Your task to perform on an android device: open sync settings in chrome Image 0: 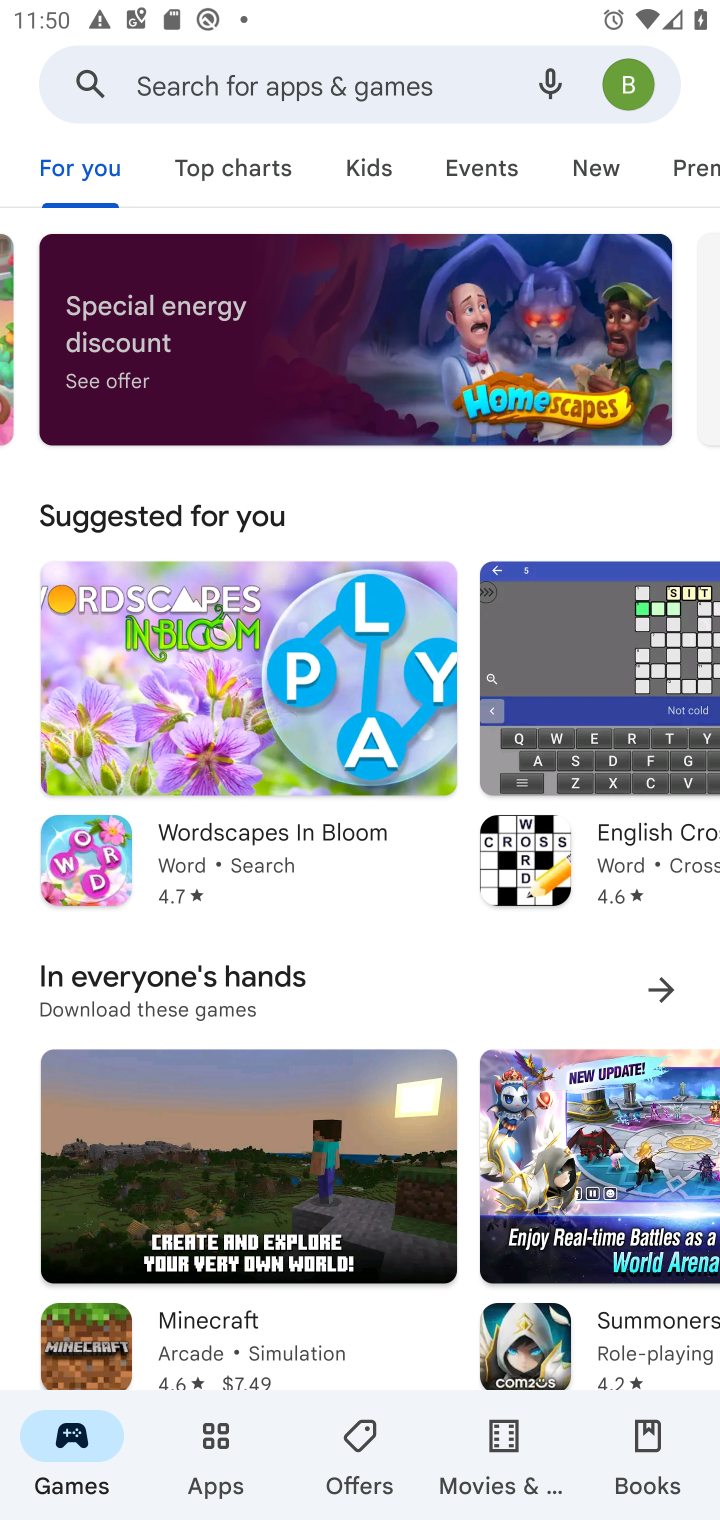
Step 0: press home button
Your task to perform on an android device: open sync settings in chrome Image 1: 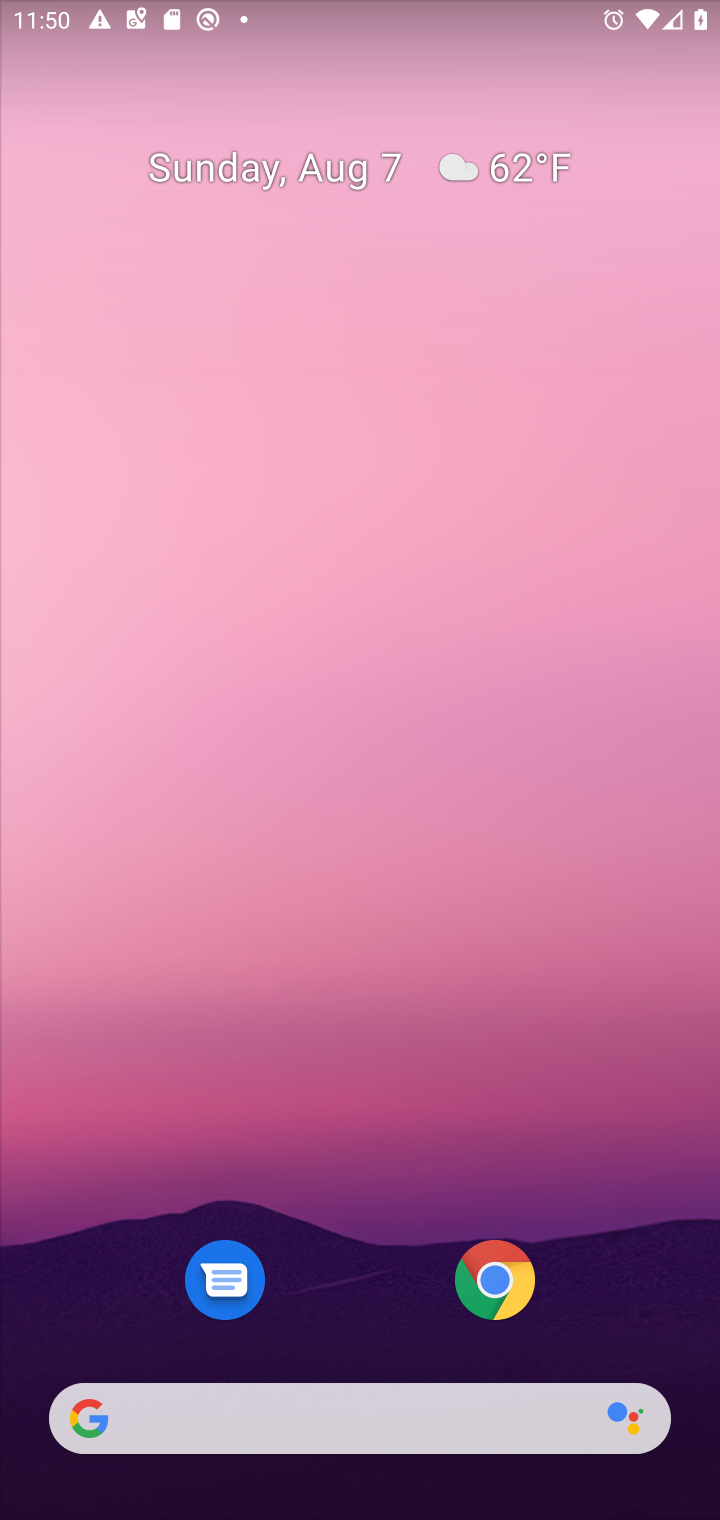
Step 1: click (491, 1280)
Your task to perform on an android device: open sync settings in chrome Image 2: 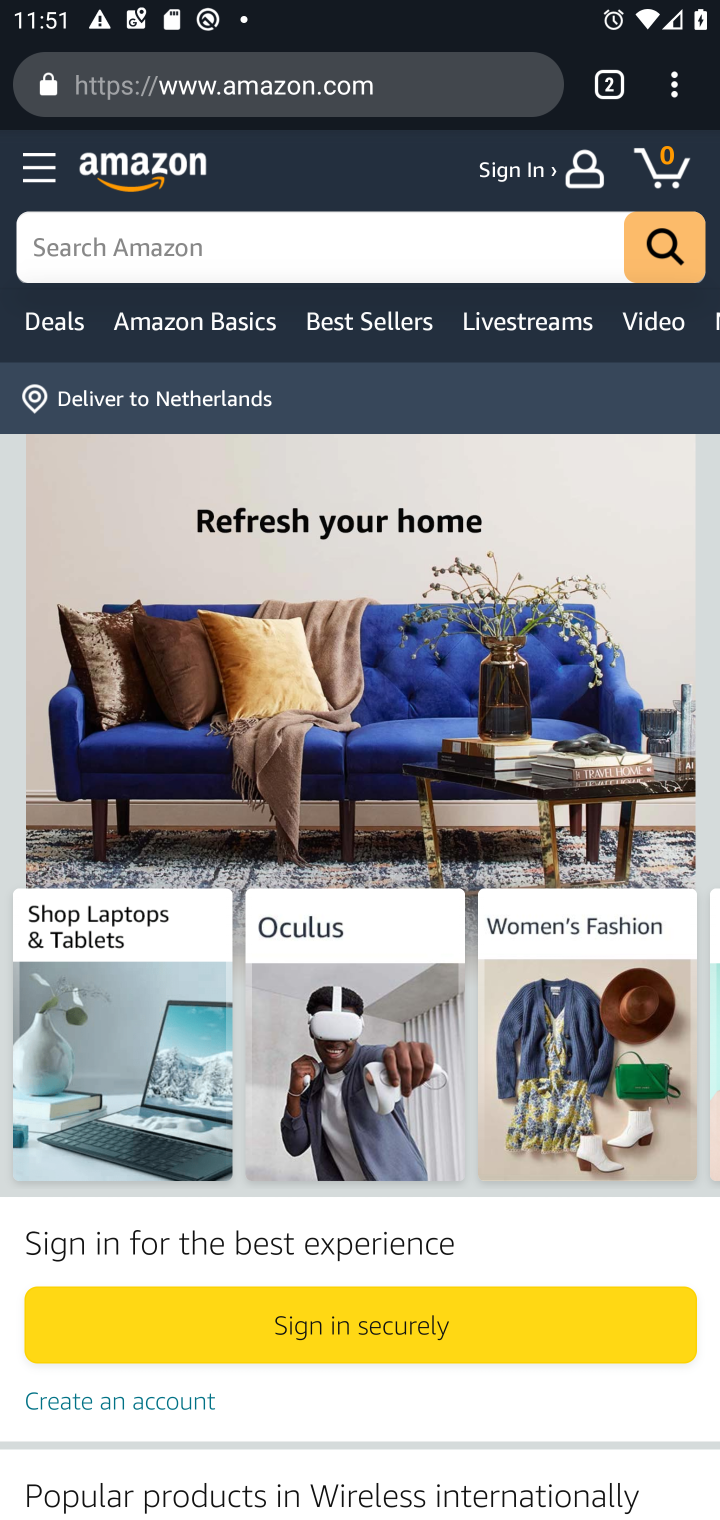
Step 2: drag from (676, 94) to (396, 1088)
Your task to perform on an android device: open sync settings in chrome Image 3: 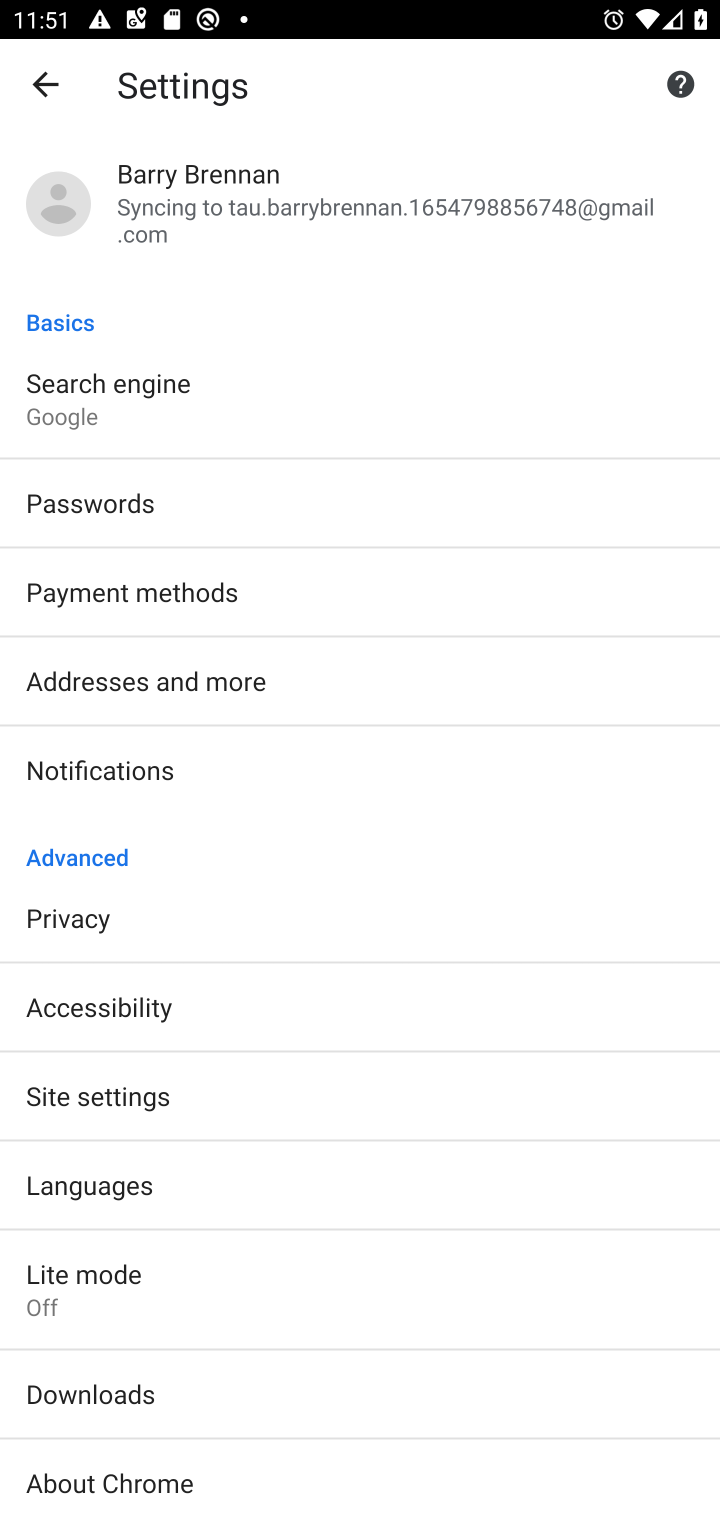
Step 3: click (83, 1092)
Your task to perform on an android device: open sync settings in chrome Image 4: 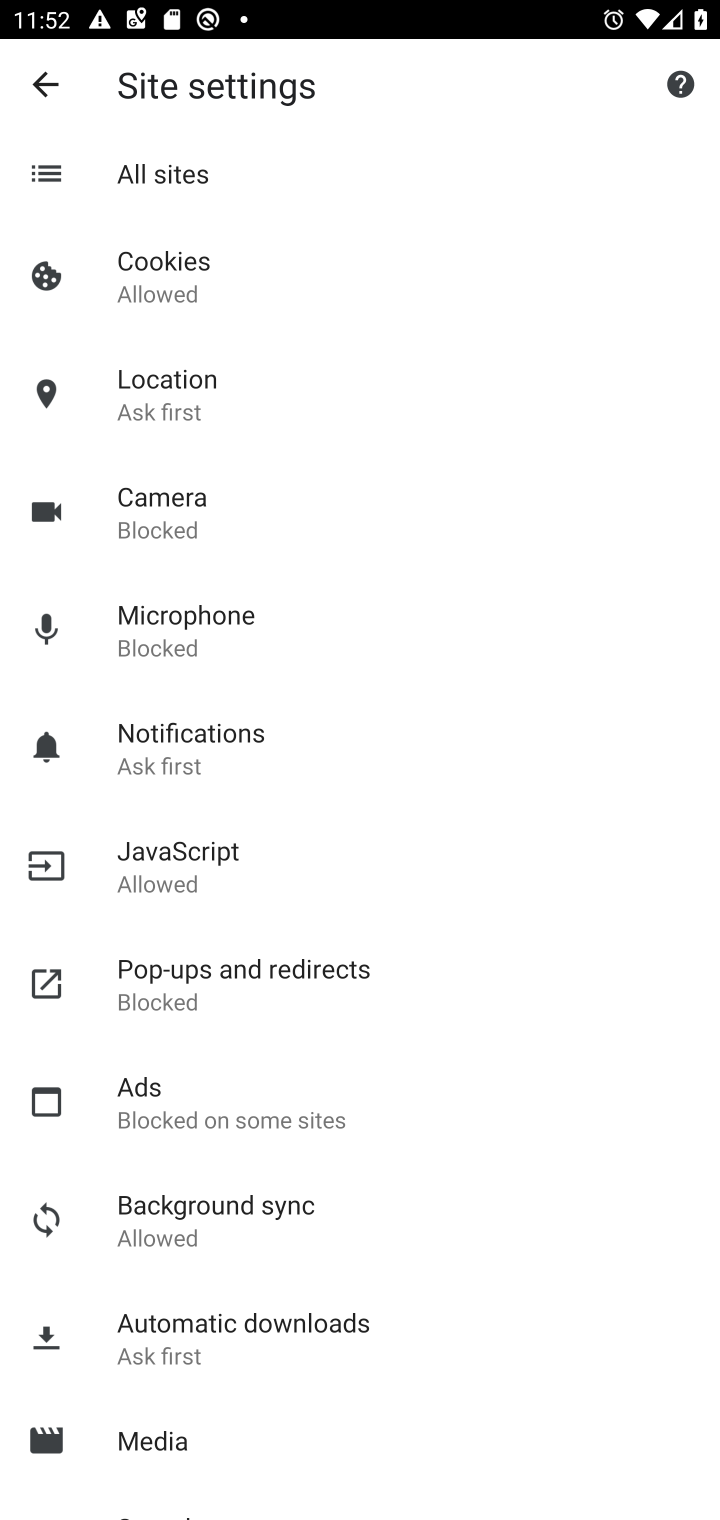
Step 4: click (187, 1221)
Your task to perform on an android device: open sync settings in chrome Image 5: 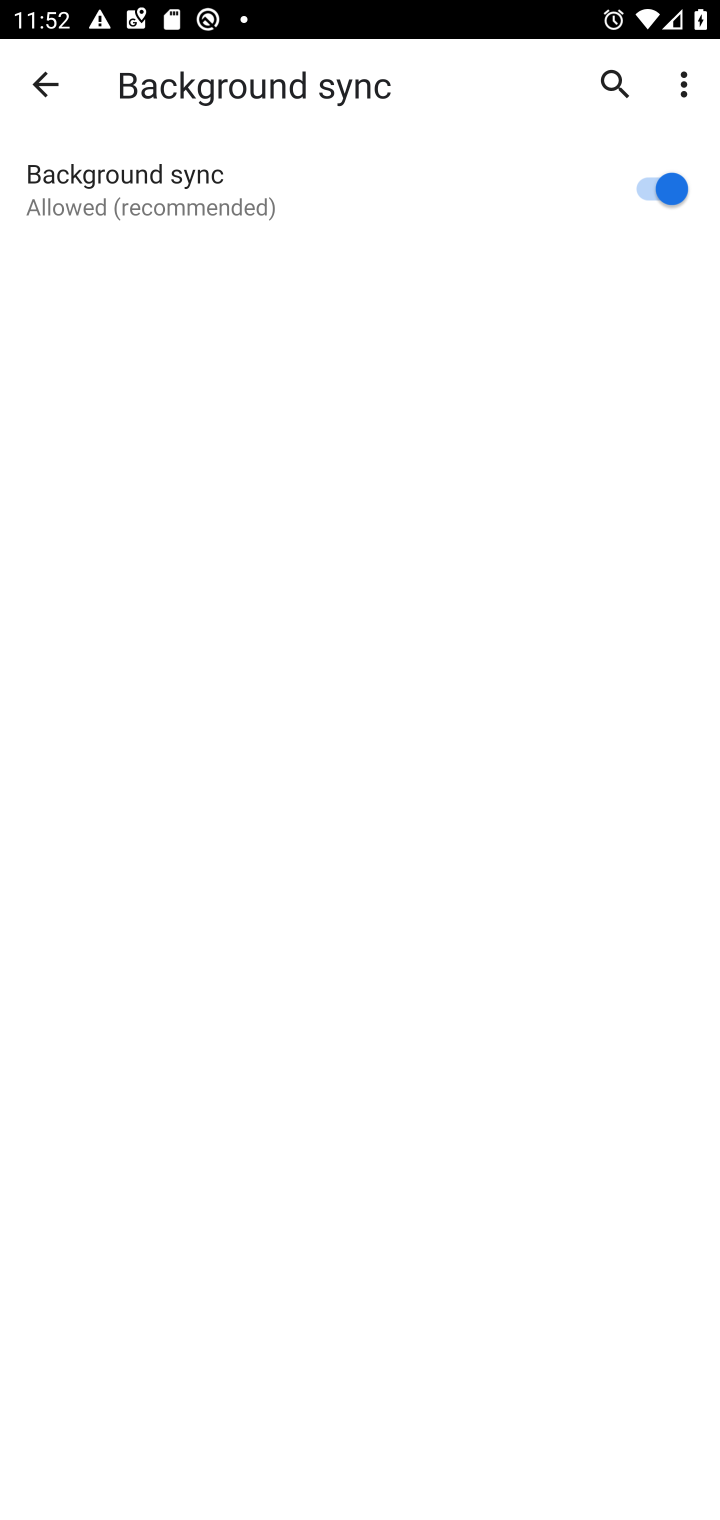
Step 5: task complete